Your task to perform on an android device: search for starred emails in the gmail app Image 0: 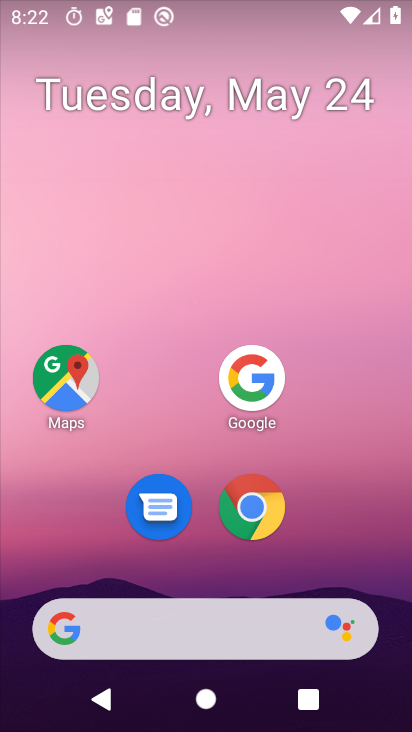
Step 0: press home button
Your task to perform on an android device: search for starred emails in the gmail app Image 1: 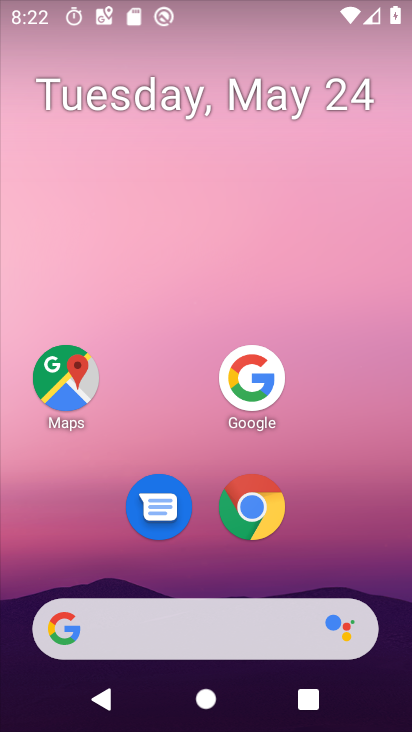
Step 1: drag from (169, 645) to (307, 131)
Your task to perform on an android device: search for starred emails in the gmail app Image 2: 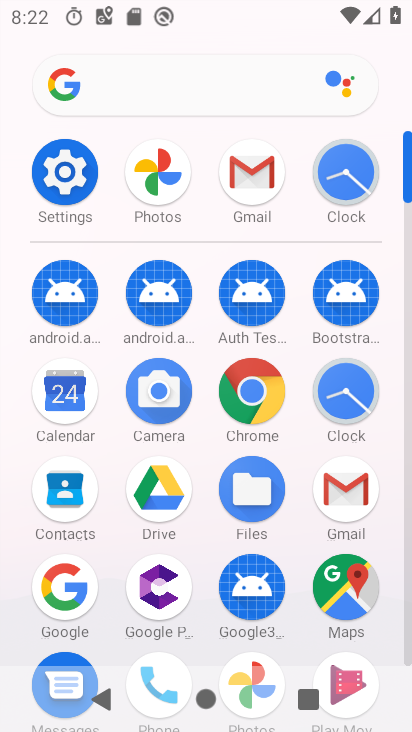
Step 2: click (260, 186)
Your task to perform on an android device: search for starred emails in the gmail app Image 3: 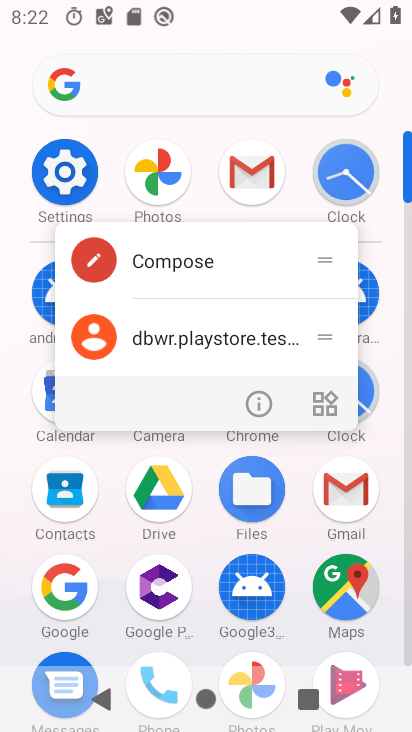
Step 3: click (255, 184)
Your task to perform on an android device: search for starred emails in the gmail app Image 4: 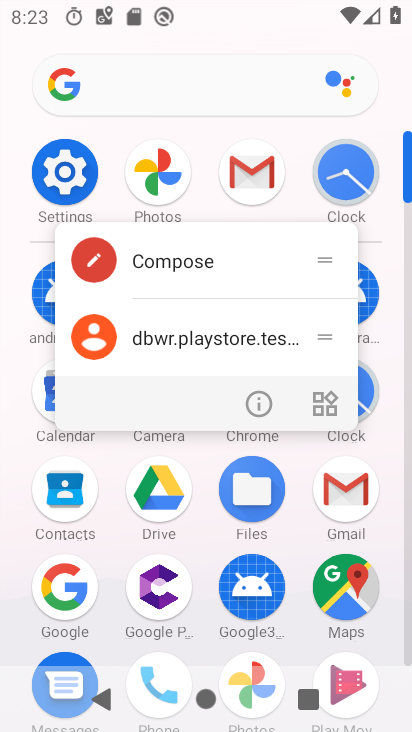
Step 4: click (247, 179)
Your task to perform on an android device: search for starred emails in the gmail app Image 5: 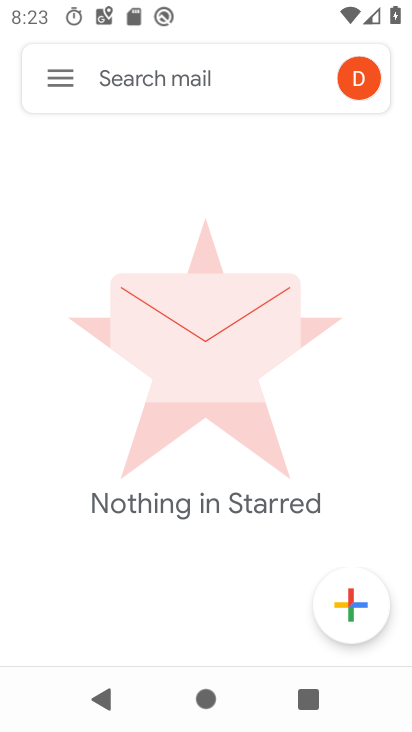
Step 5: click (61, 76)
Your task to perform on an android device: search for starred emails in the gmail app Image 6: 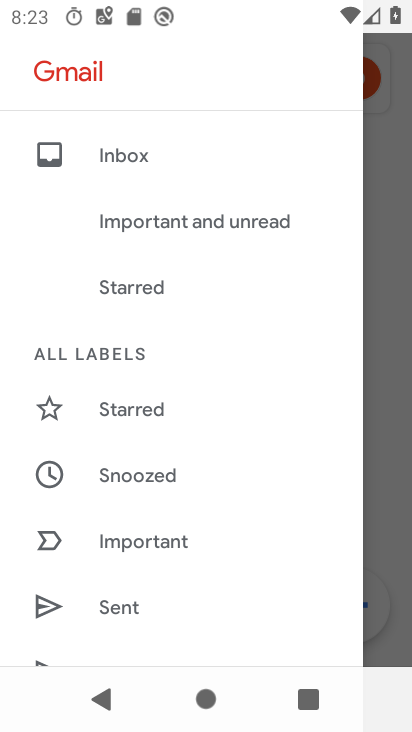
Step 6: click (131, 405)
Your task to perform on an android device: search for starred emails in the gmail app Image 7: 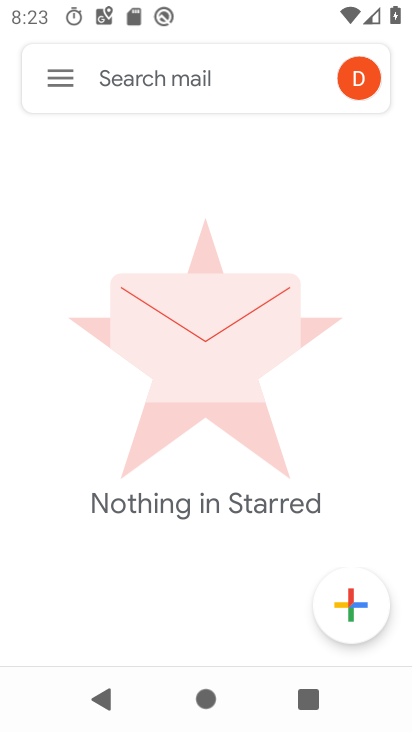
Step 7: task complete